Your task to perform on an android device: turn on airplane mode Image 0: 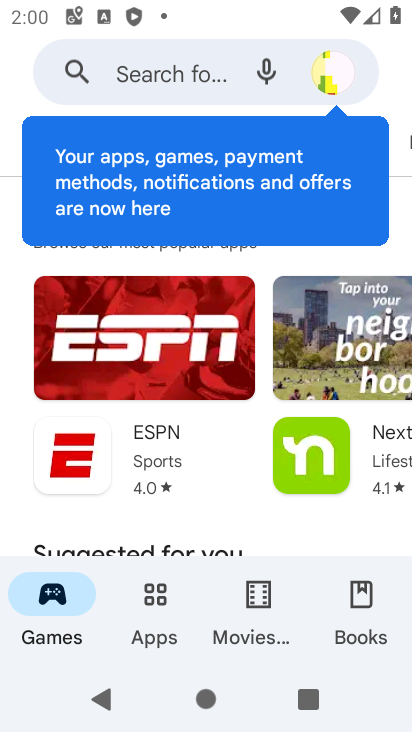
Step 0: press home button
Your task to perform on an android device: turn on airplane mode Image 1: 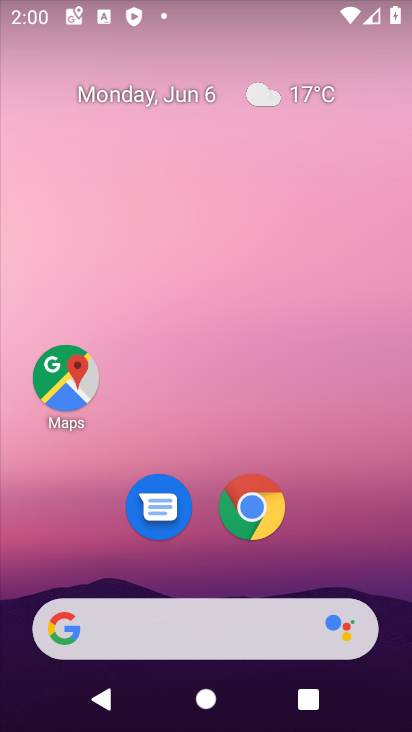
Step 1: drag from (208, 487) to (240, 21)
Your task to perform on an android device: turn on airplane mode Image 2: 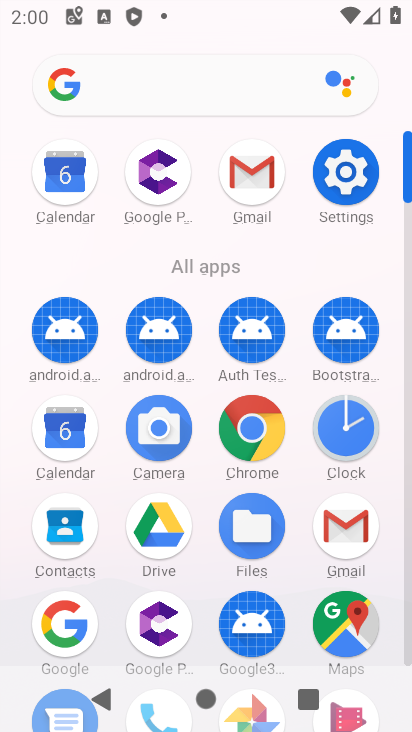
Step 2: click (340, 175)
Your task to perform on an android device: turn on airplane mode Image 3: 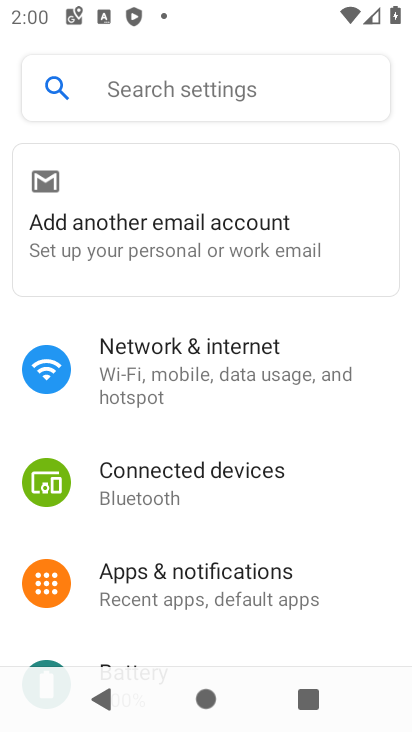
Step 3: click (231, 365)
Your task to perform on an android device: turn on airplane mode Image 4: 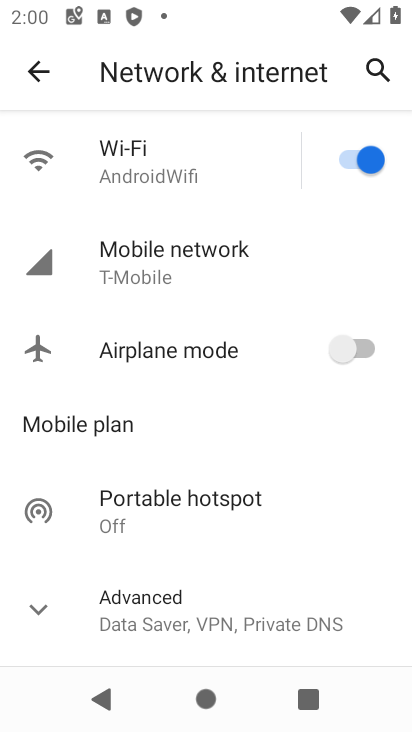
Step 4: click (347, 348)
Your task to perform on an android device: turn on airplane mode Image 5: 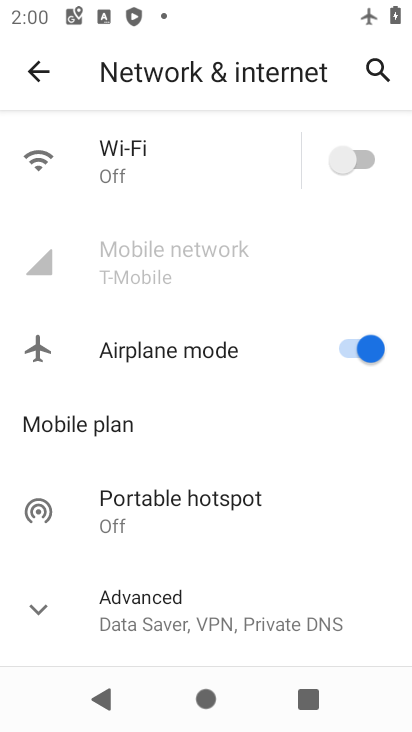
Step 5: task complete